Your task to perform on an android device: uninstall "Adobe Express: Graphic Design" Image 0: 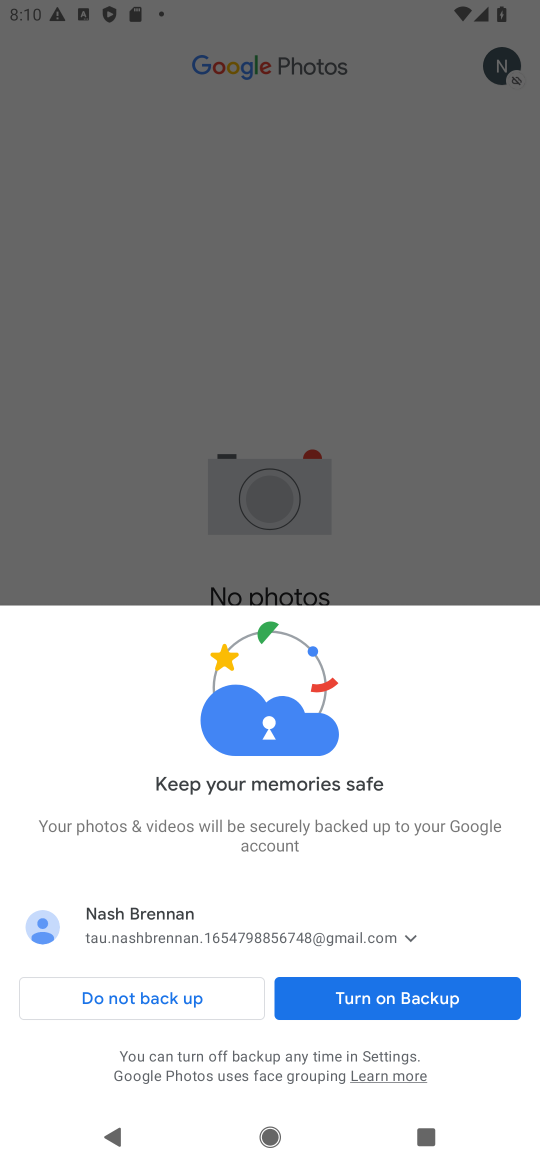
Step 0: press home button
Your task to perform on an android device: uninstall "Adobe Express: Graphic Design" Image 1: 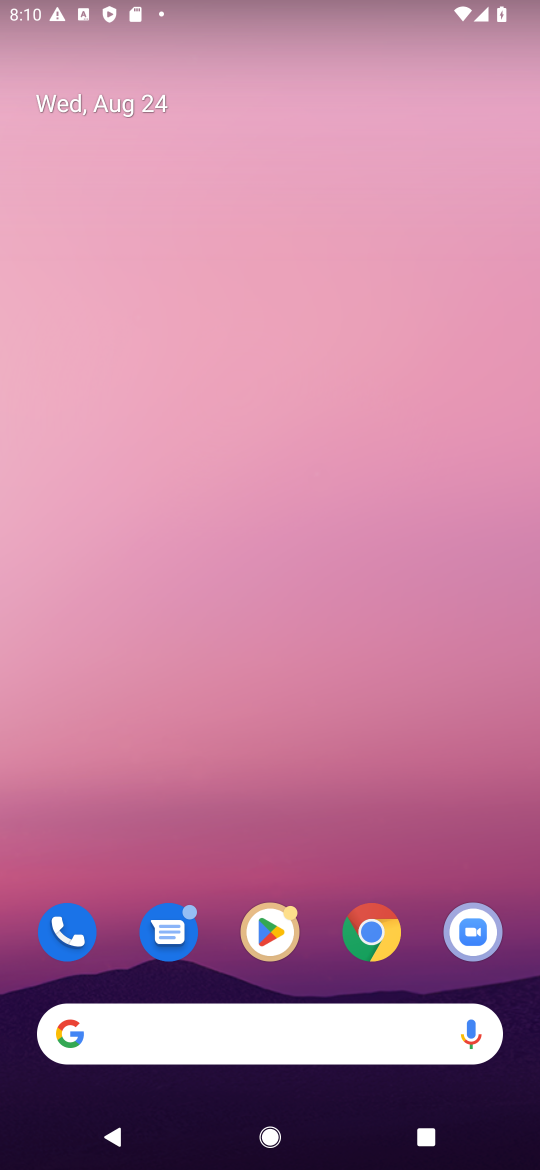
Step 1: click (266, 932)
Your task to perform on an android device: uninstall "Adobe Express: Graphic Design" Image 2: 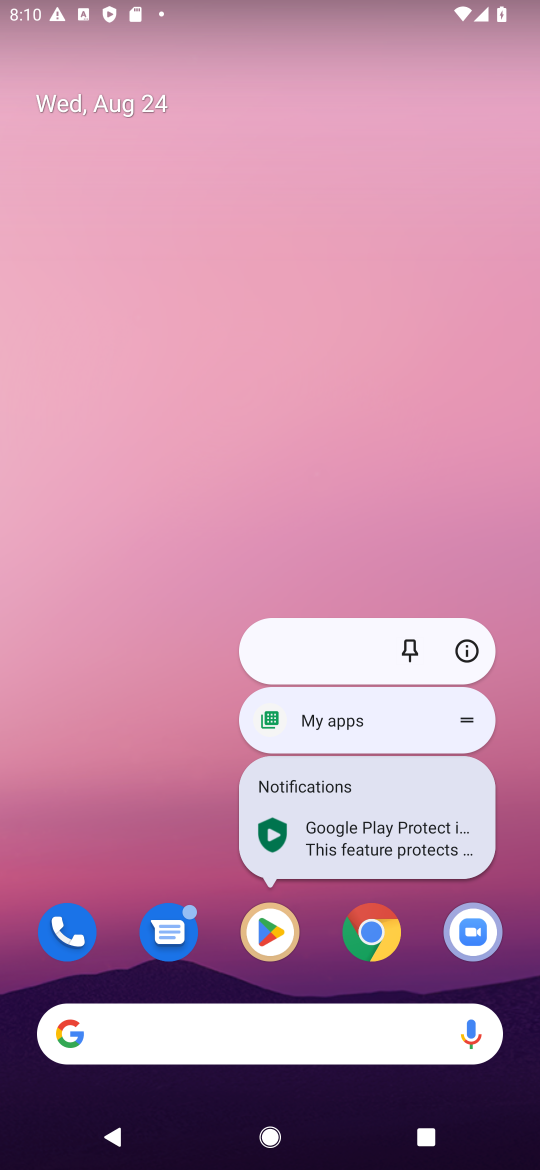
Step 2: click (258, 931)
Your task to perform on an android device: uninstall "Adobe Express: Graphic Design" Image 3: 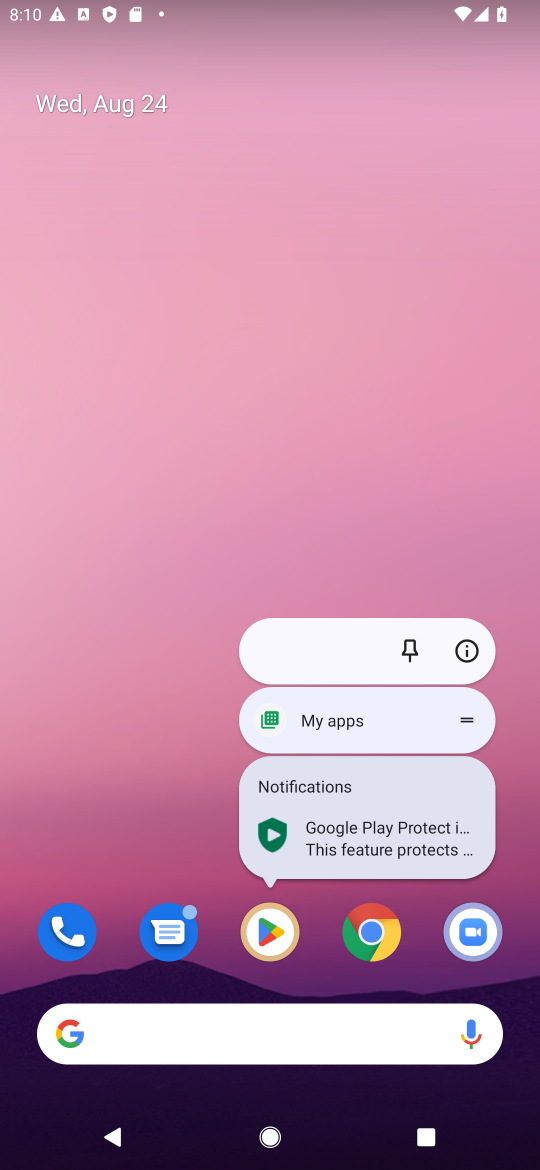
Step 3: click (269, 941)
Your task to perform on an android device: uninstall "Adobe Express: Graphic Design" Image 4: 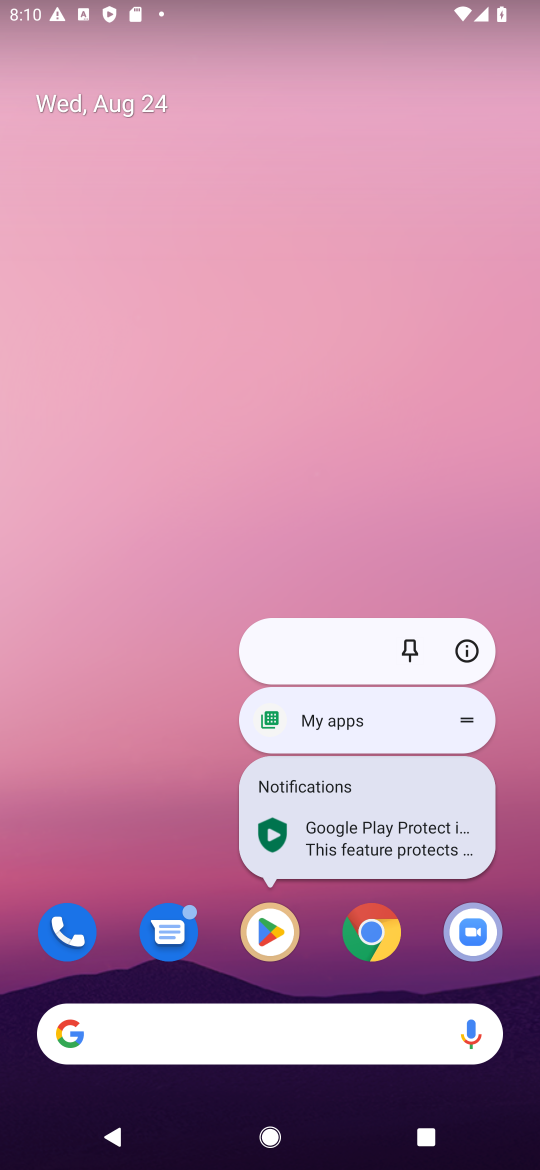
Step 4: click (269, 941)
Your task to perform on an android device: uninstall "Adobe Express: Graphic Design" Image 5: 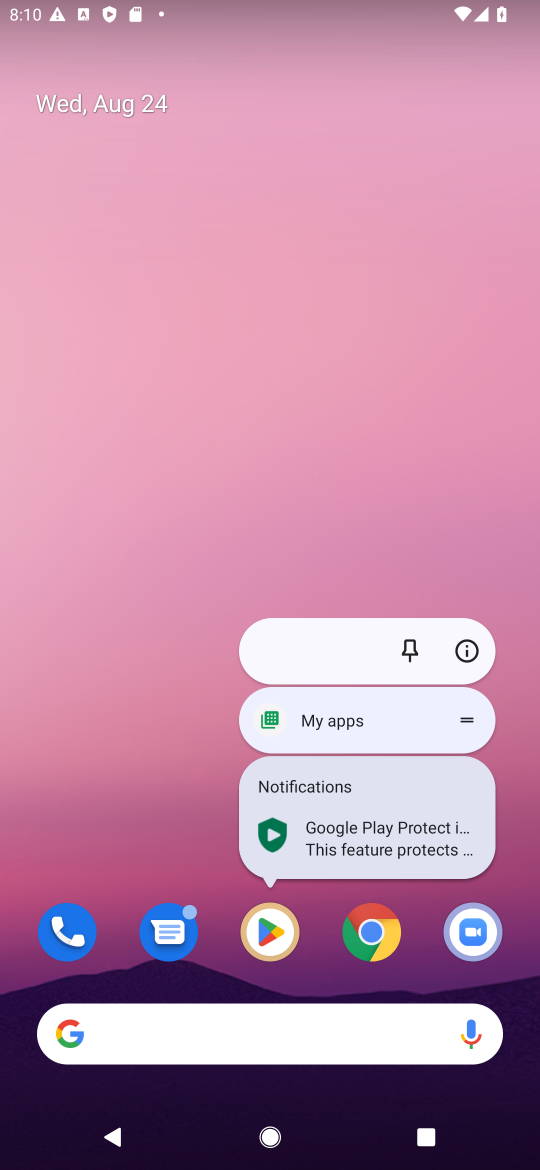
Step 5: click (257, 930)
Your task to perform on an android device: uninstall "Adobe Express: Graphic Design" Image 6: 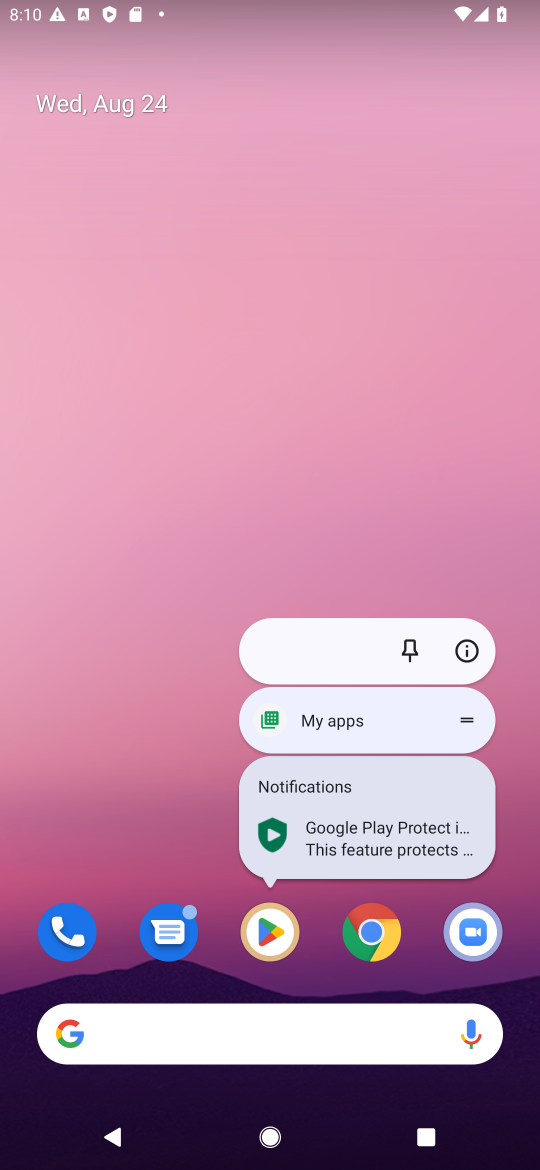
Step 6: click (257, 930)
Your task to perform on an android device: uninstall "Adobe Express: Graphic Design" Image 7: 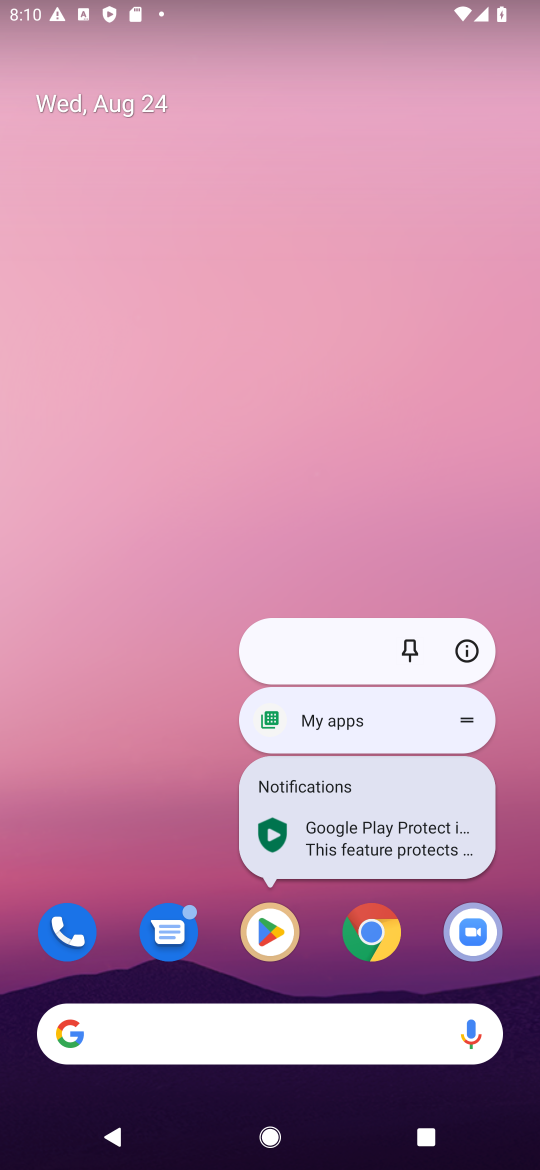
Step 7: click (257, 930)
Your task to perform on an android device: uninstall "Adobe Express: Graphic Design" Image 8: 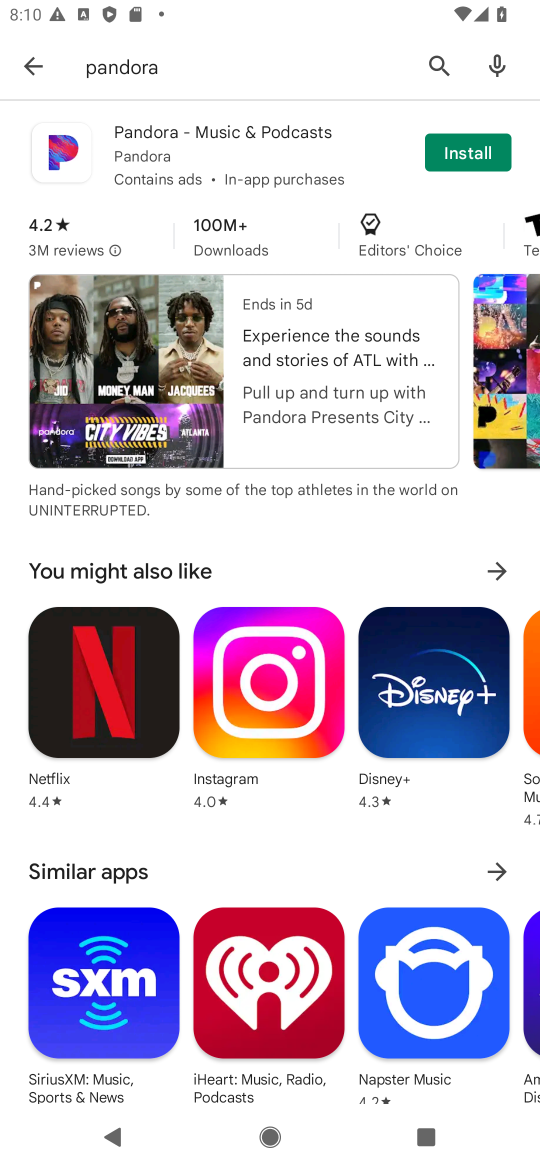
Step 8: click (217, 60)
Your task to perform on an android device: uninstall "Adobe Express: Graphic Design" Image 9: 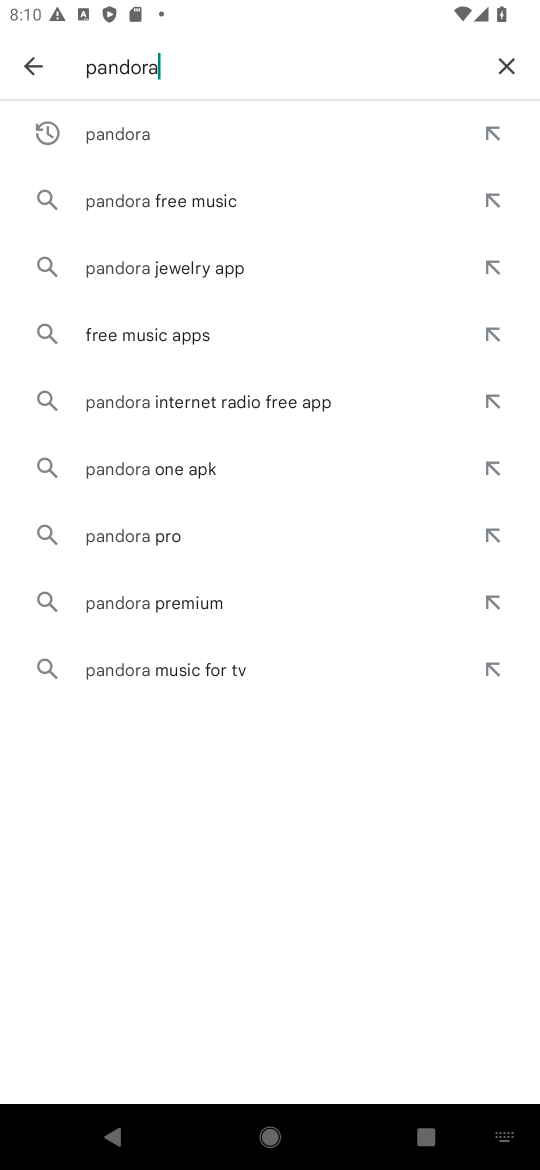
Step 9: click (512, 63)
Your task to perform on an android device: uninstall "Adobe Express: Graphic Design" Image 10: 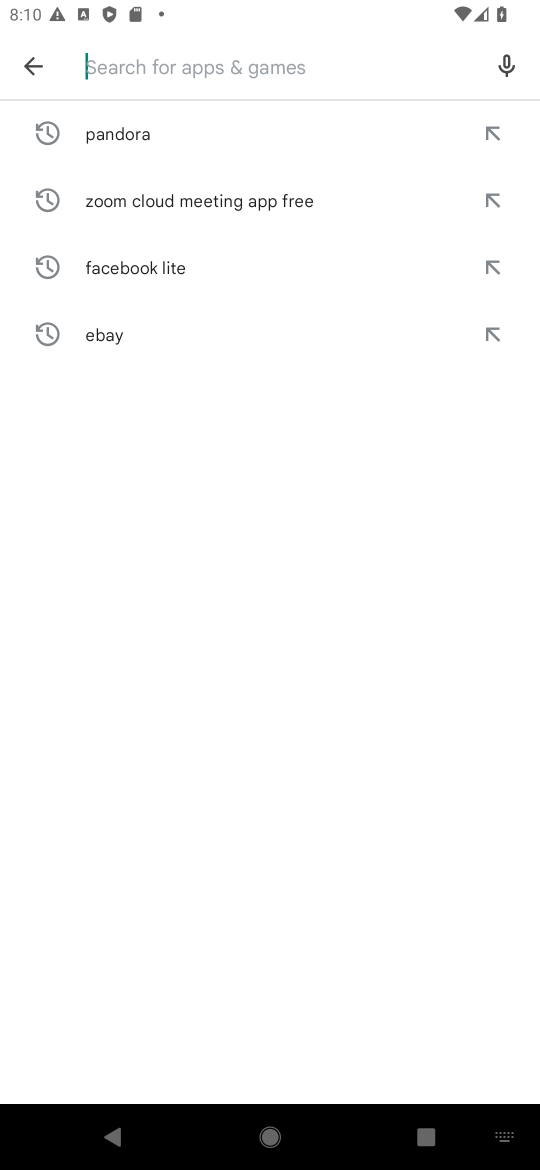
Step 10: type "adobe expresss"
Your task to perform on an android device: uninstall "Adobe Express: Graphic Design" Image 11: 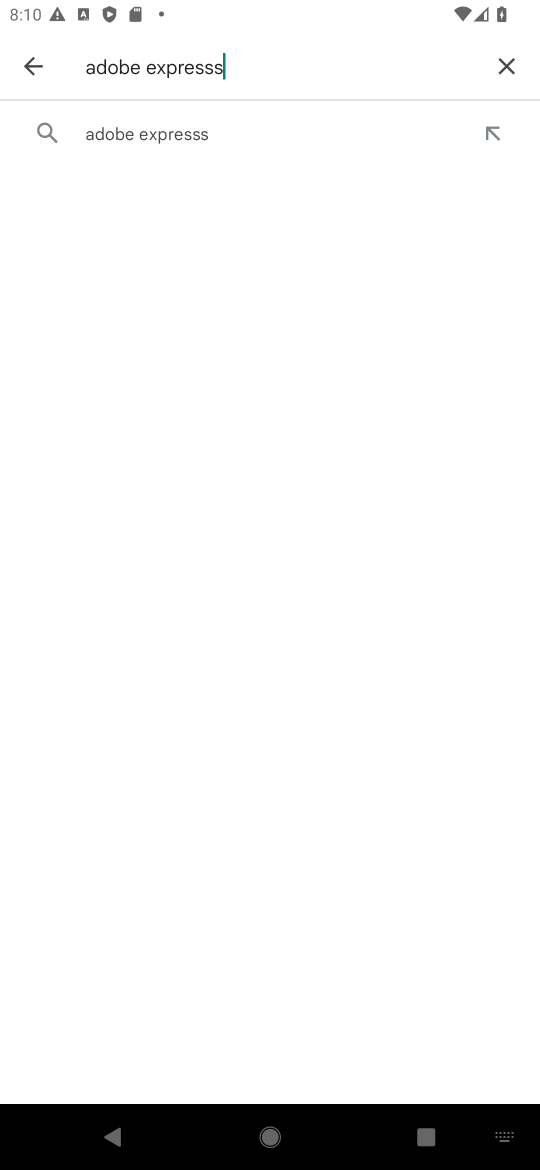
Step 11: click (177, 132)
Your task to perform on an android device: uninstall "Adobe Express: Graphic Design" Image 12: 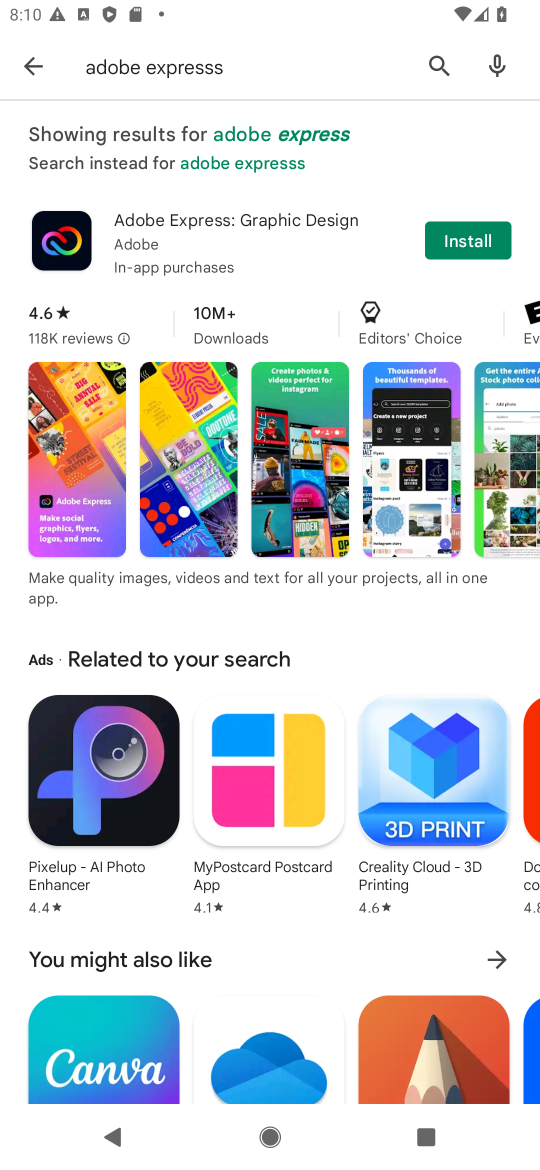
Step 12: task complete